Your task to perform on an android device: Open Maps and search for coffee Image 0: 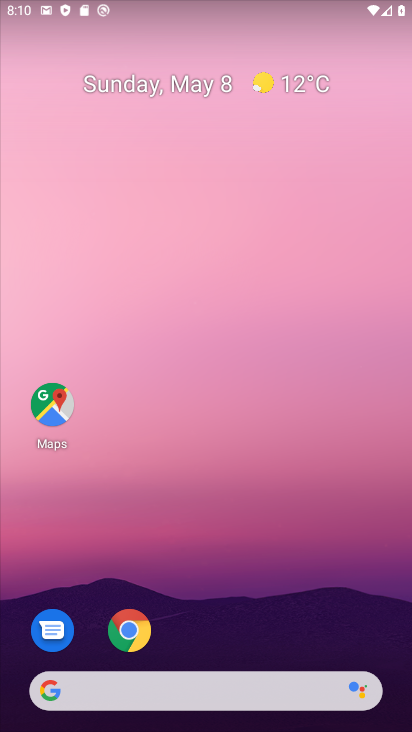
Step 0: click (40, 394)
Your task to perform on an android device: Open Maps and search for coffee Image 1: 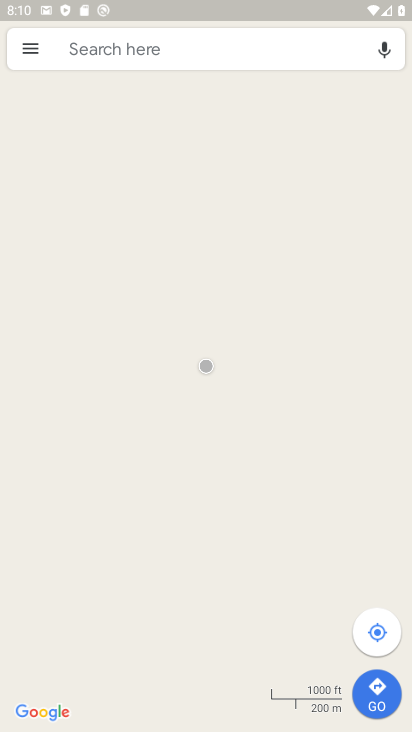
Step 1: click (213, 61)
Your task to perform on an android device: Open Maps and search for coffee Image 2: 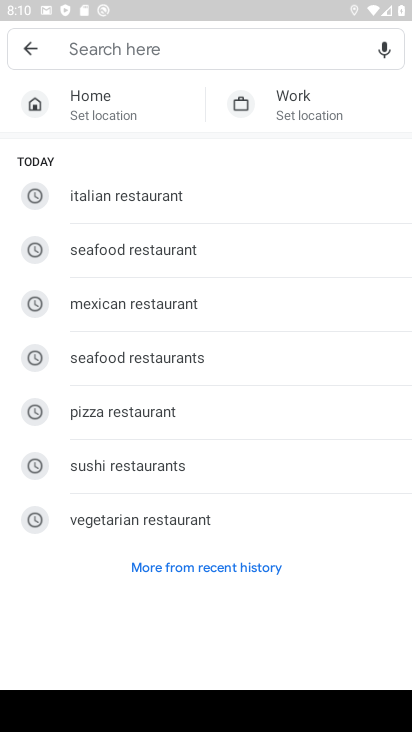
Step 2: type "coffee"
Your task to perform on an android device: Open Maps and search for coffee Image 3: 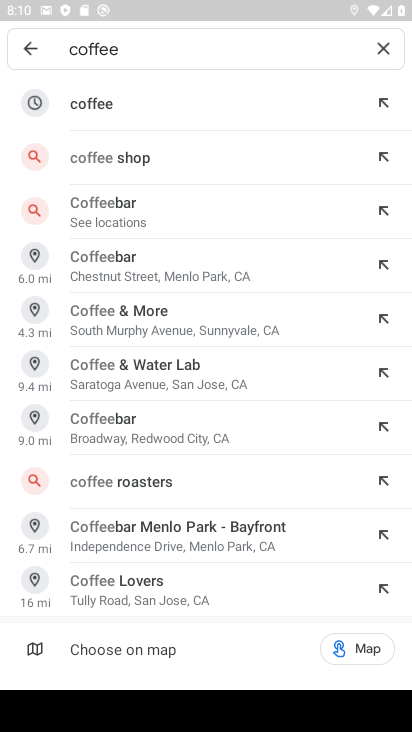
Step 3: click (133, 95)
Your task to perform on an android device: Open Maps and search for coffee Image 4: 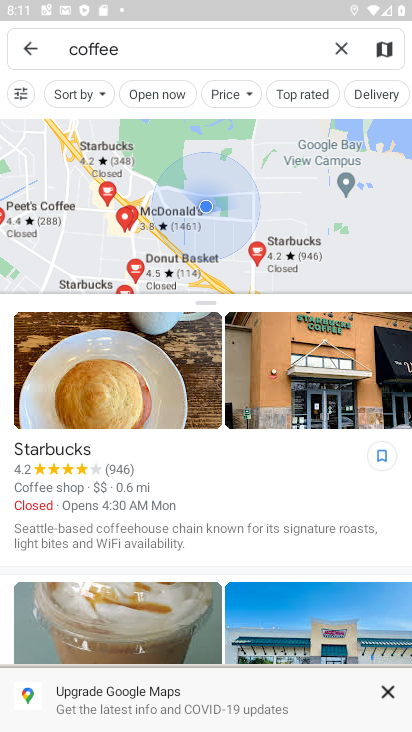
Step 4: task complete